Your task to perform on an android device: Go to Amazon Image 0: 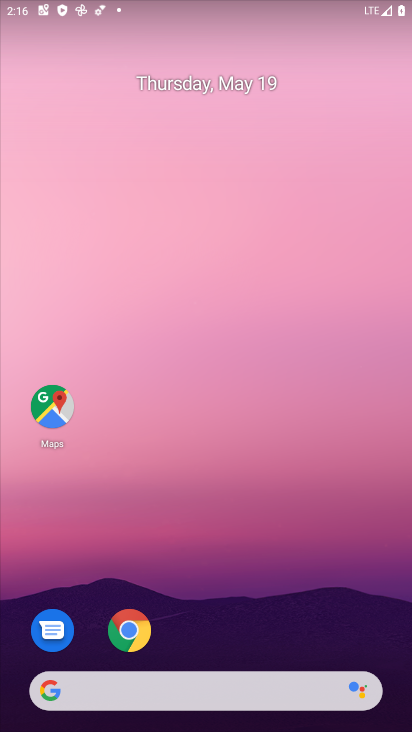
Step 0: click (129, 628)
Your task to perform on an android device: Go to Amazon Image 1: 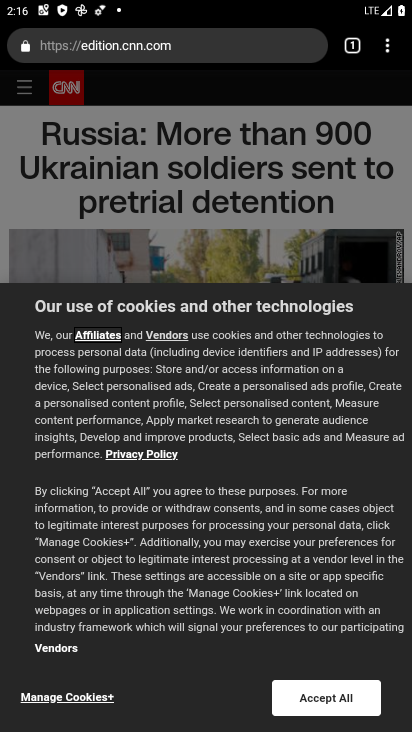
Step 1: click (171, 45)
Your task to perform on an android device: Go to Amazon Image 2: 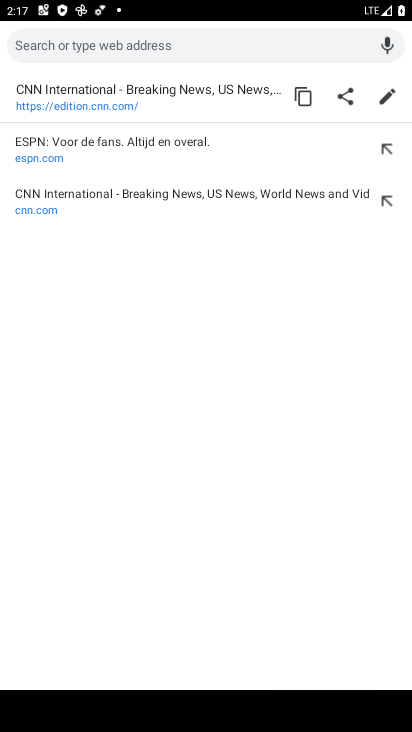
Step 2: type "amazon"
Your task to perform on an android device: Go to Amazon Image 3: 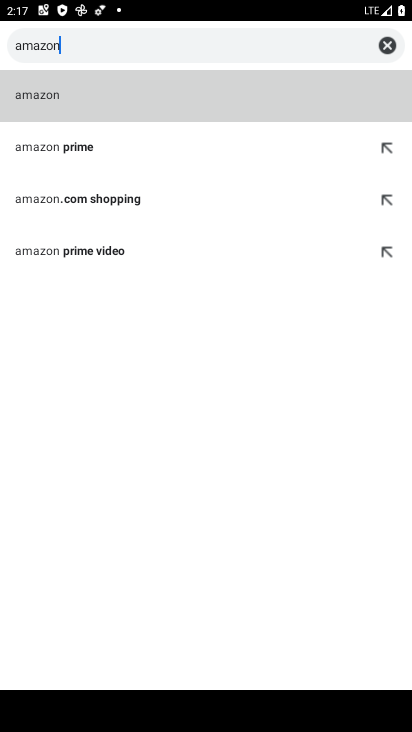
Step 3: click (20, 87)
Your task to perform on an android device: Go to Amazon Image 4: 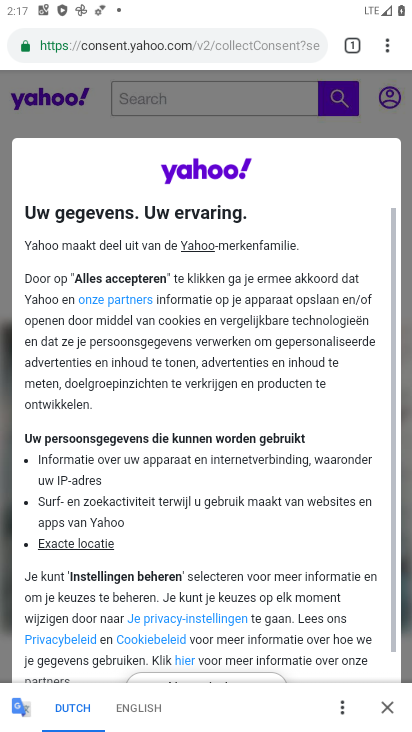
Step 4: drag from (268, 566) to (273, 200)
Your task to perform on an android device: Go to Amazon Image 5: 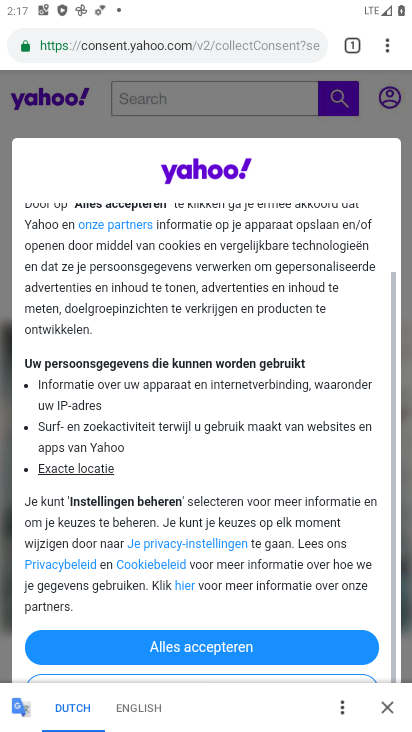
Step 5: click (186, 647)
Your task to perform on an android device: Go to Amazon Image 6: 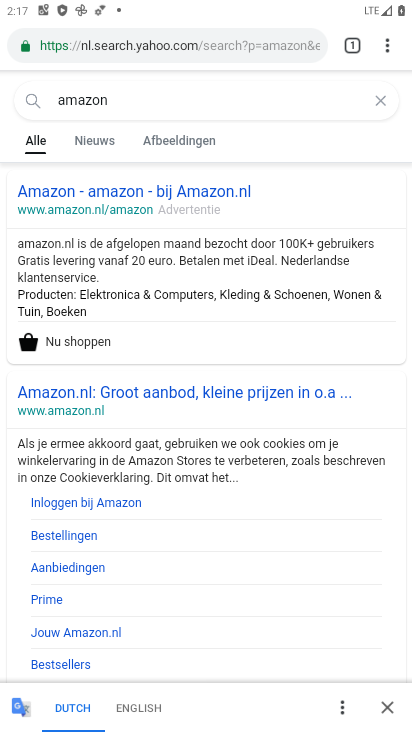
Step 6: click (69, 188)
Your task to perform on an android device: Go to Amazon Image 7: 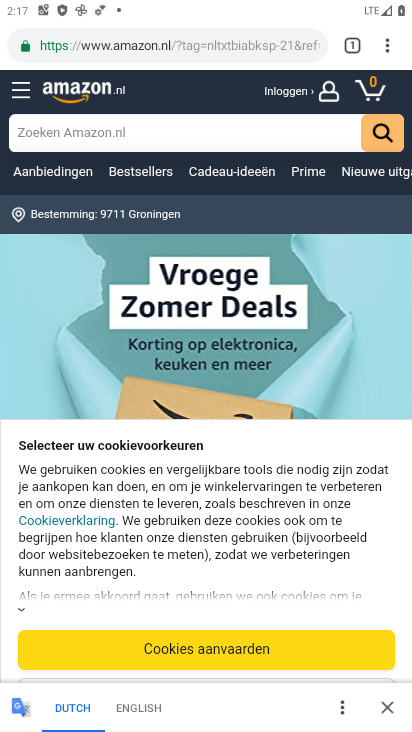
Step 7: task complete